Your task to perform on an android device: turn notification dots off Image 0: 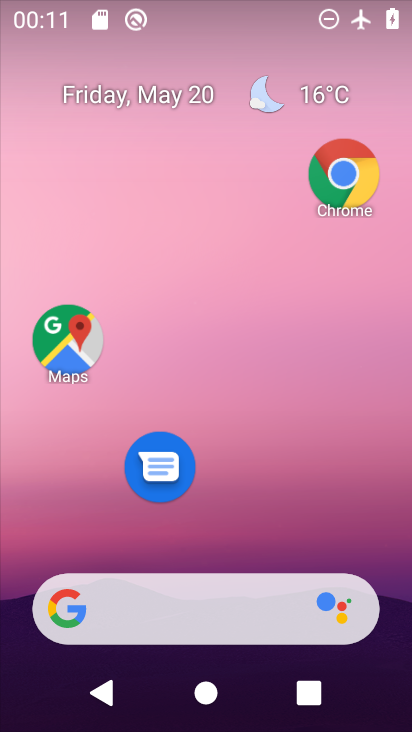
Step 0: drag from (249, 296) to (227, 229)
Your task to perform on an android device: turn notification dots off Image 1: 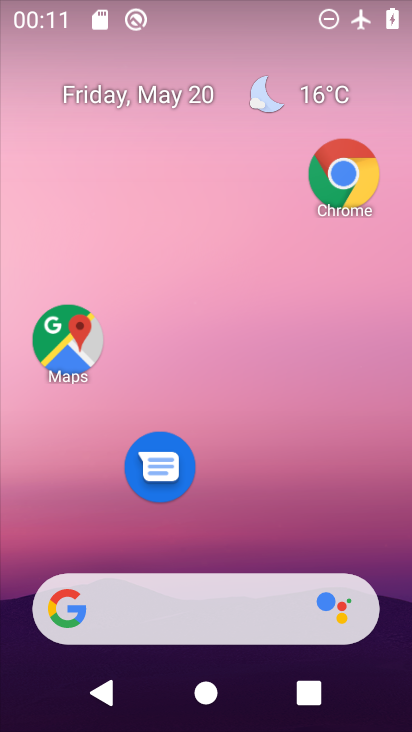
Step 1: drag from (241, 545) to (248, 254)
Your task to perform on an android device: turn notification dots off Image 2: 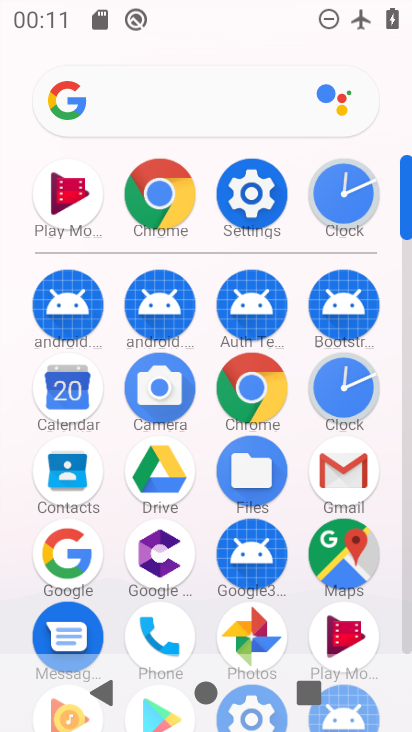
Step 2: click (250, 191)
Your task to perform on an android device: turn notification dots off Image 3: 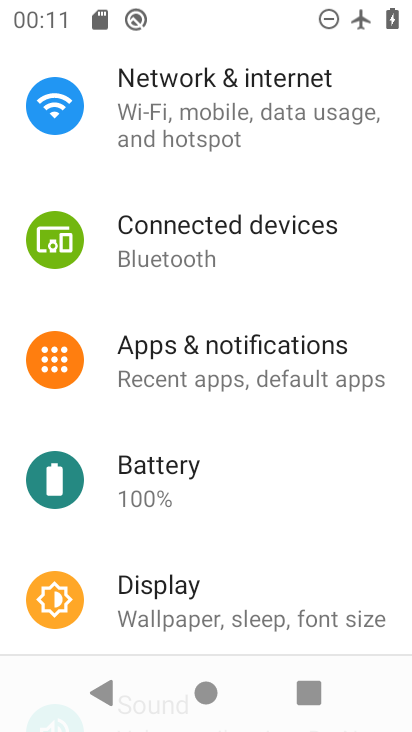
Step 3: drag from (284, 142) to (219, 413)
Your task to perform on an android device: turn notification dots off Image 4: 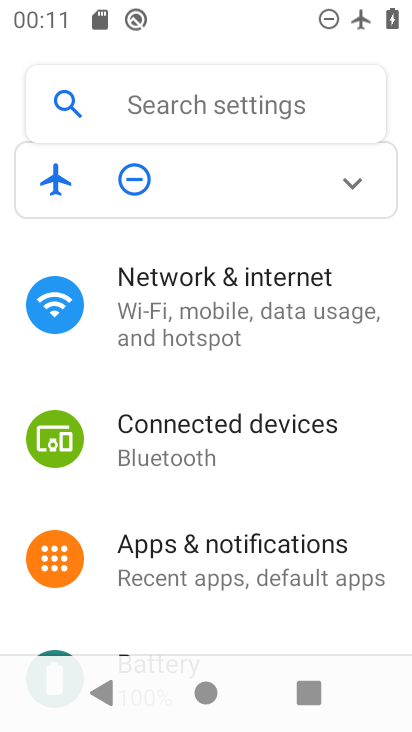
Step 4: click (215, 92)
Your task to perform on an android device: turn notification dots off Image 5: 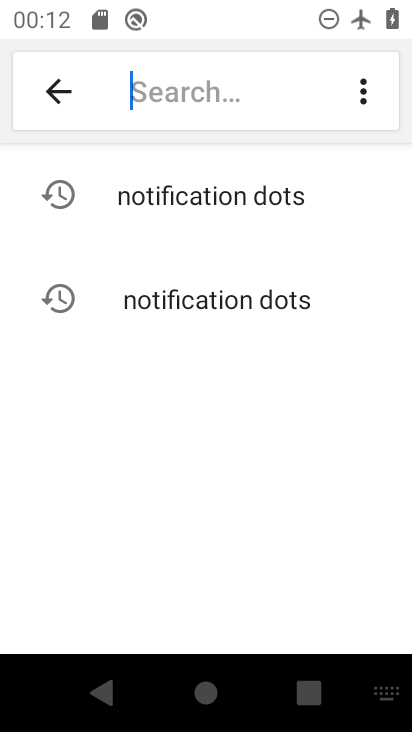
Step 5: click (204, 202)
Your task to perform on an android device: turn notification dots off Image 6: 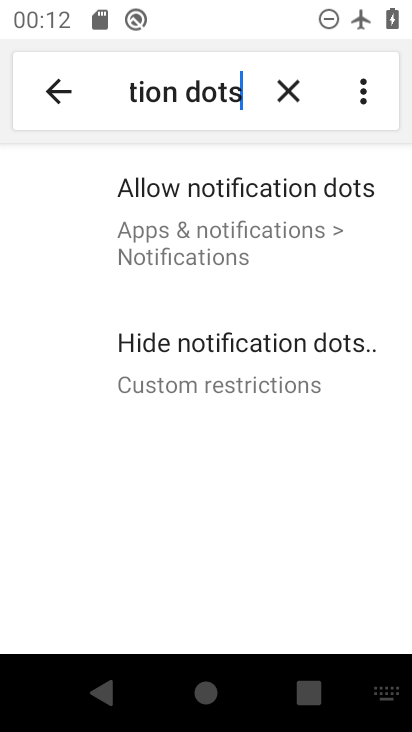
Step 6: click (246, 200)
Your task to perform on an android device: turn notification dots off Image 7: 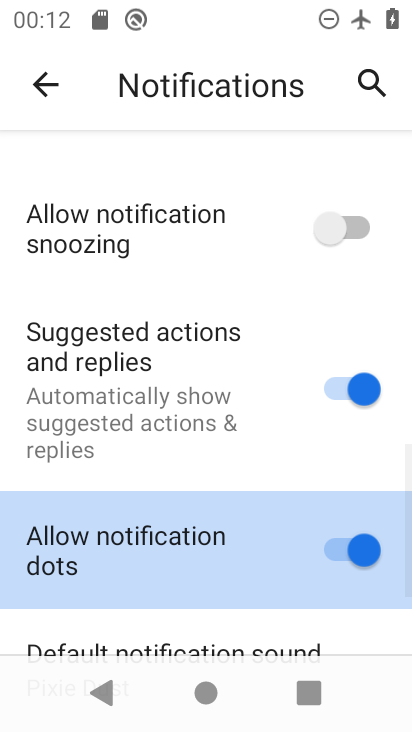
Step 7: click (334, 545)
Your task to perform on an android device: turn notification dots off Image 8: 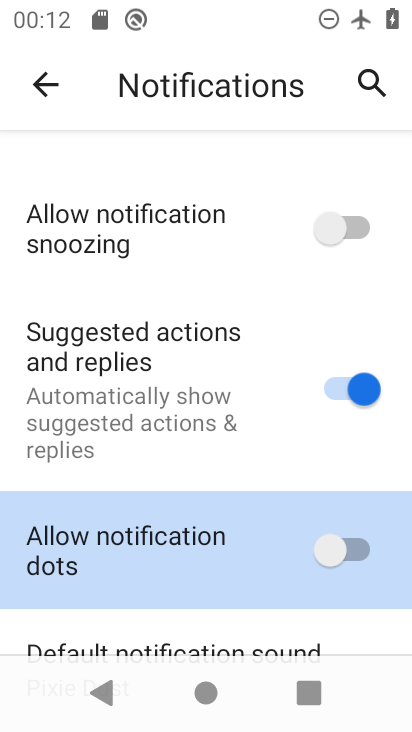
Step 8: task complete